Your task to perform on an android device: turn on the 12-hour format for clock Image 0: 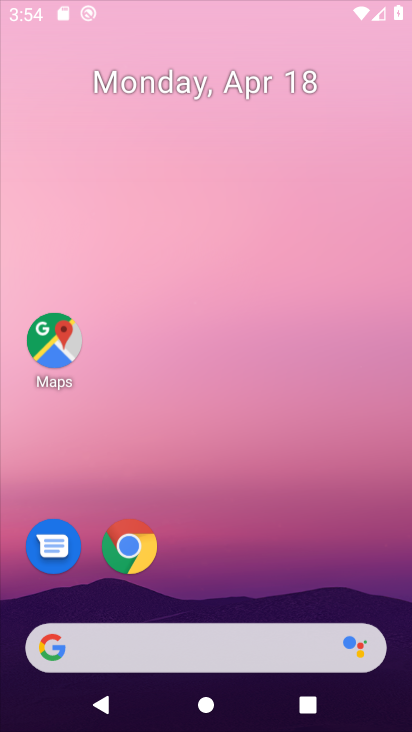
Step 0: click (249, 248)
Your task to perform on an android device: turn on the 12-hour format for clock Image 1: 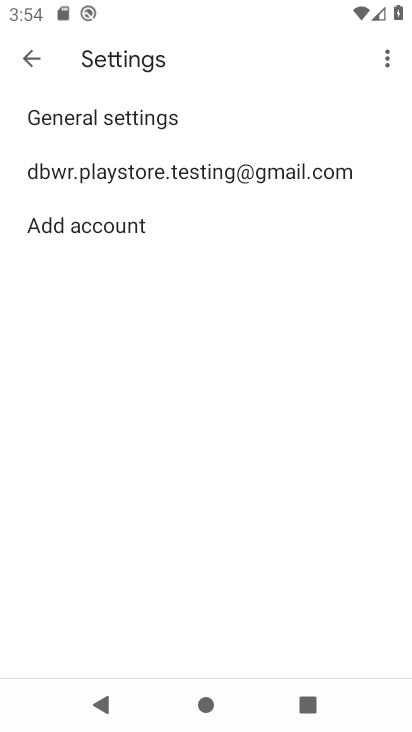
Step 1: press home button
Your task to perform on an android device: turn on the 12-hour format for clock Image 2: 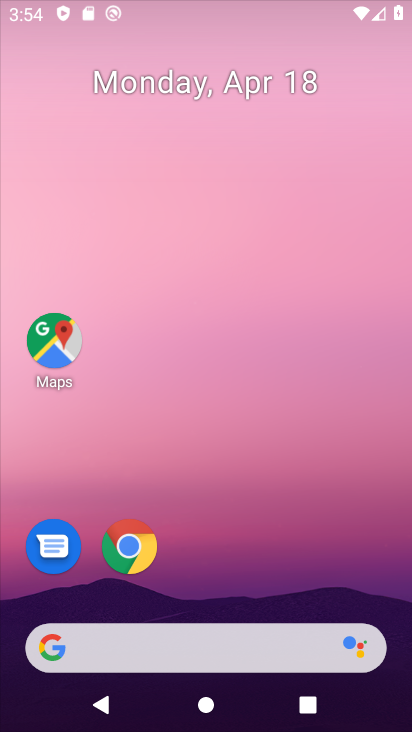
Step 2: drag from (245, 474) to (248, 291)
Your task to perform on an android device: turn on the 12-hour format for clock Image 3: 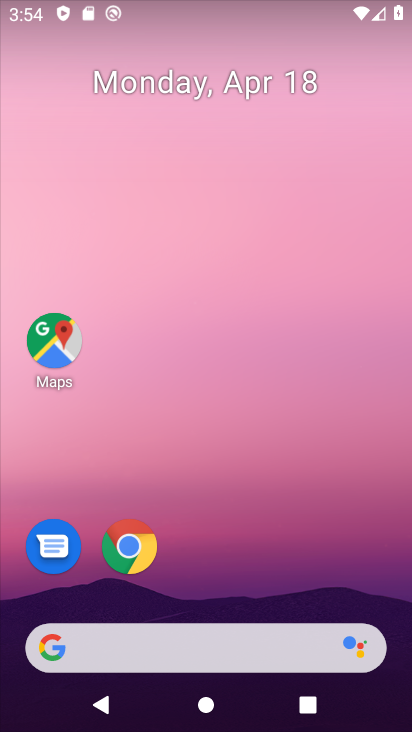
Step 3: drag from (236, 351) to (243, 279)
Your task to perform on an android device: turn on the 12-hour format for clock Image 4: 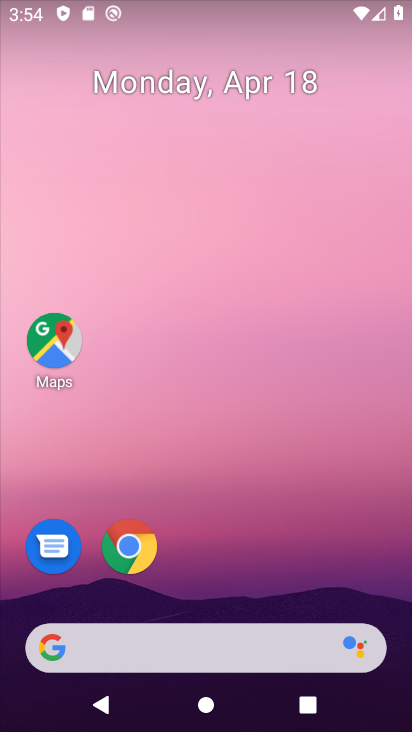
Step 4: drag from (243, 555) to (339, 231)
Your task to perform on an android device: turn on the 12-hour format for clock Image 5: 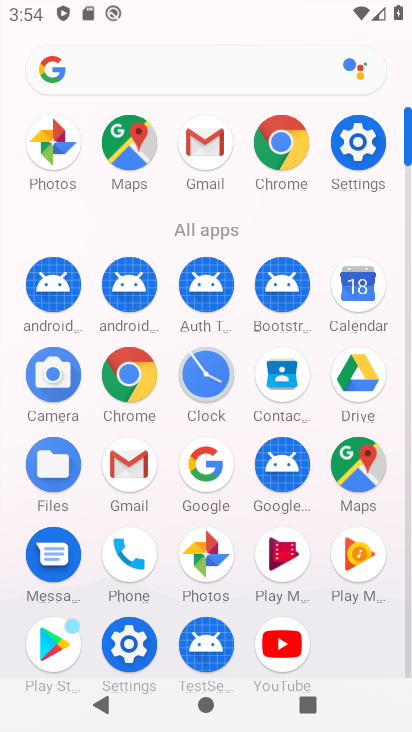
Step 5: click (220, 371)
Your task to perform on an android device: turn on the 12-hour format for clock Image 6: 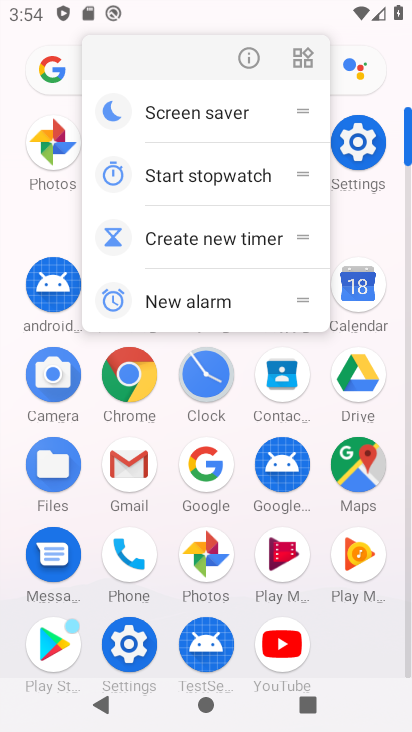
Step 6: click (220, 371)
Your task to perform on an android device: turn on the 12-hour format for clock Image 7: 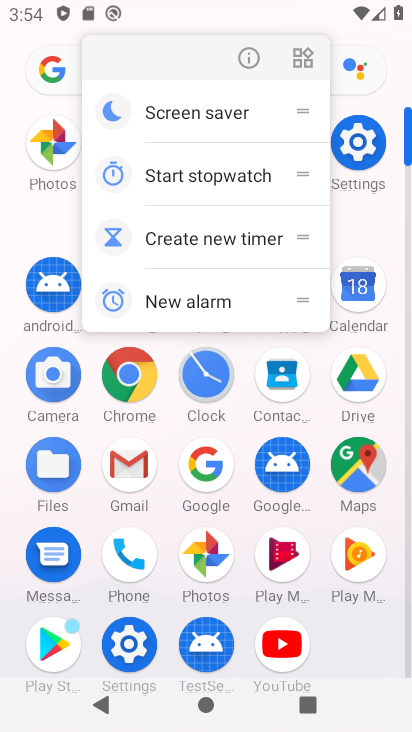
Step 7: click (209, 362)
Your task to perform on an android device: turn on the 12-hour format for clock Image 8: 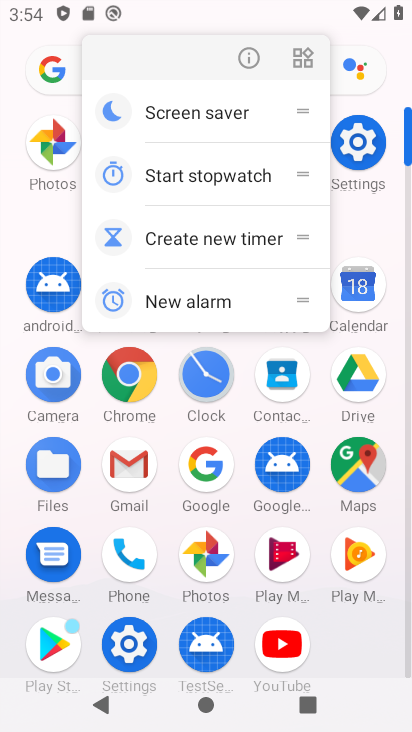
Step 8: click (209, 362)
Your task to perform on an android device: turn on the 12-hour format for clock Image 9: 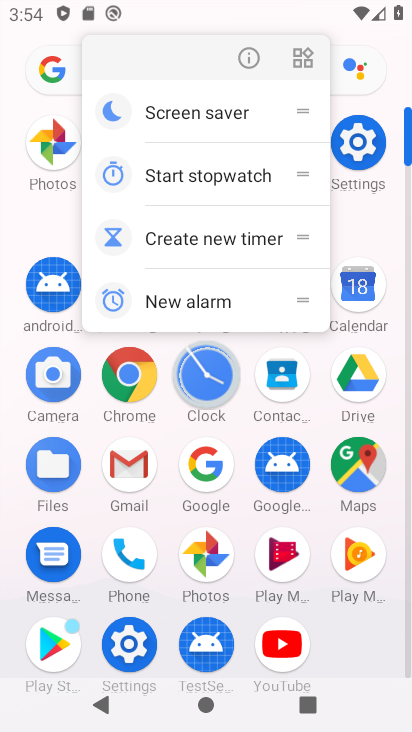
Step 9: click (209, 374)
Your task to perform on an android device: turn on the 12-hour format for clock Image 10: 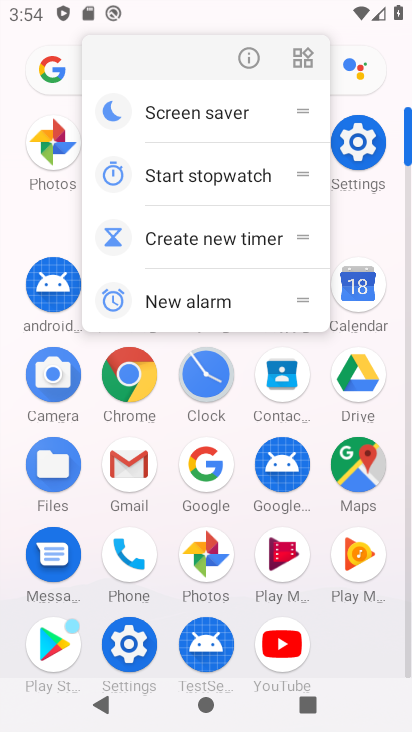
Step 10: click (209, 374)
Your task to perform on an android device: turn on the 12-hour format for clock Image 11: 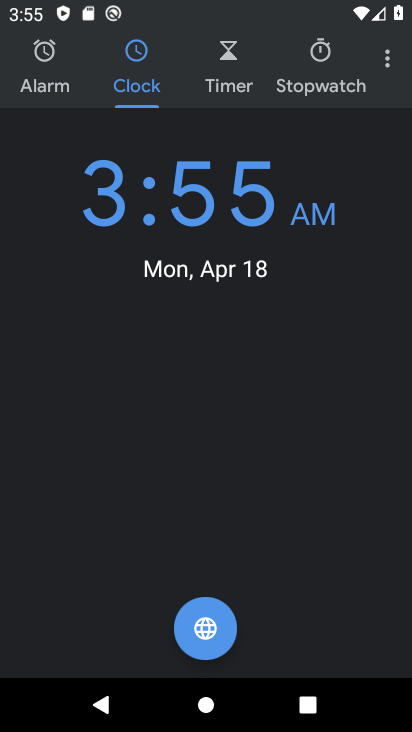
Step 11: click (391, 55)
Your task to perform on an android device: turn on the 12-hour format for clock Image 12: 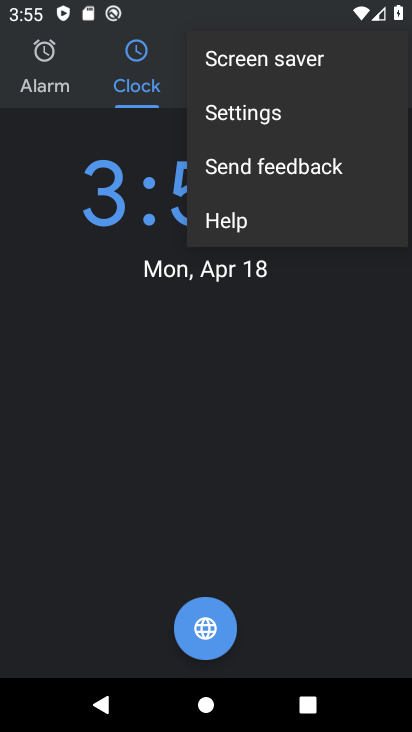
Step 12: click (285, 114)
Your task to perform on an android device: turn on the 12-hour format for clock Image 13: 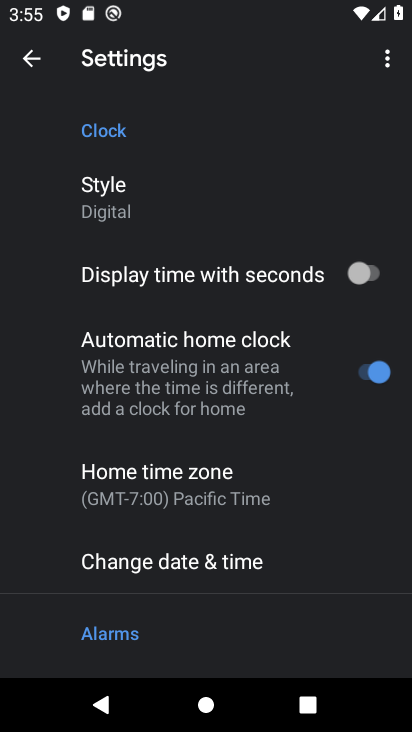
Step 13: click (231, 566)
Your task to perform on an android device: turn on the 12-hour format for clock Image 14: 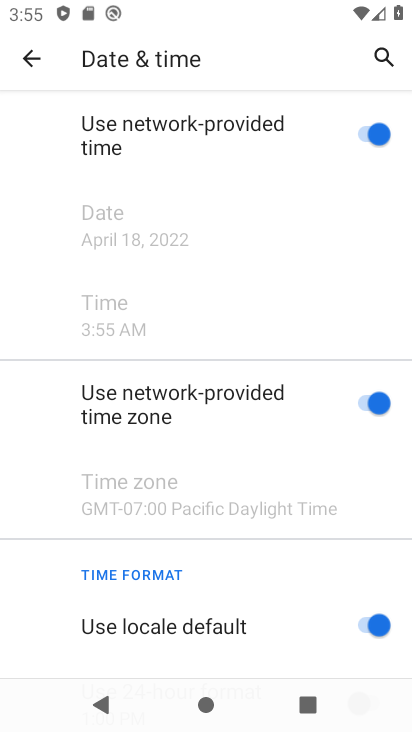
Step 14: drag from (238, 526) to (273, 172)
Your task to perform on an android device: turn on the 12-hour format for clock Image 15: 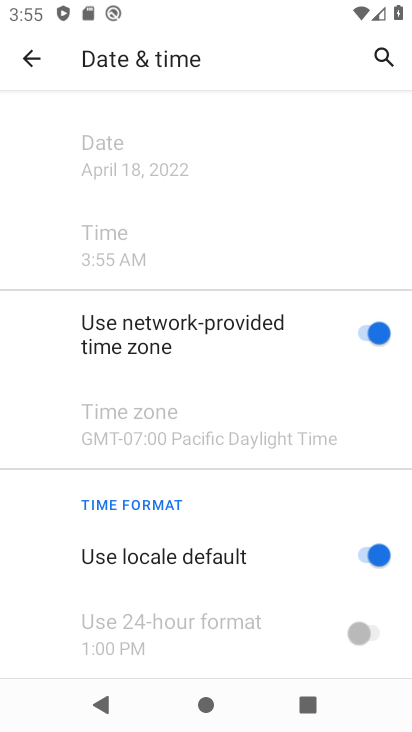
Step 15: click (378, 549)
Your task to perform on an android device: turn on the 12-hour format for clock Image 16: 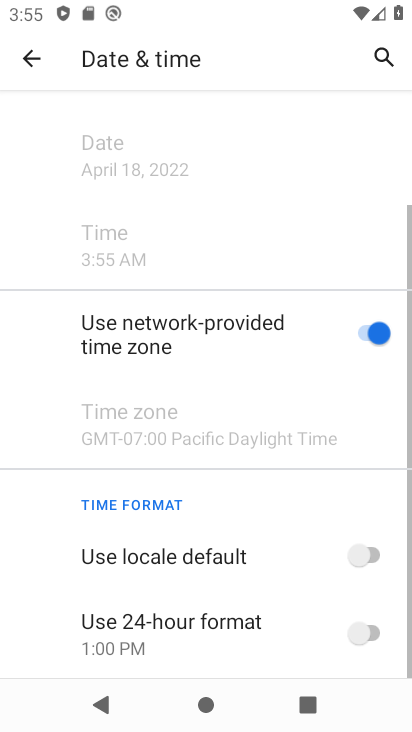
Step 16: click (370, 629)
Your task to perform on an android device: turn on the 12-hour format for clock Image 17: 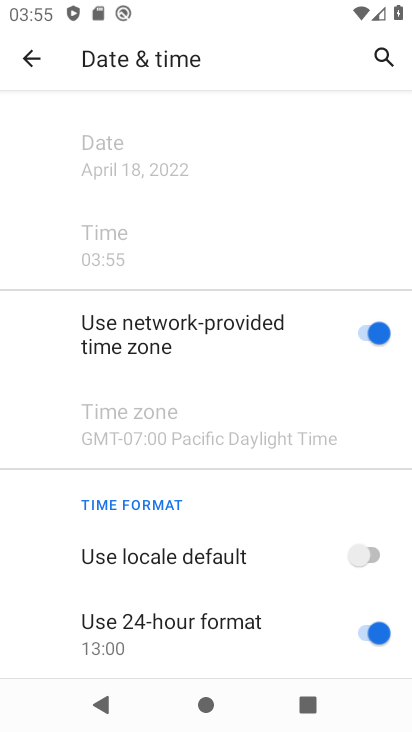
Step 17: task complete